Your task to perform on an android device: Open accessibility settings Image 0: 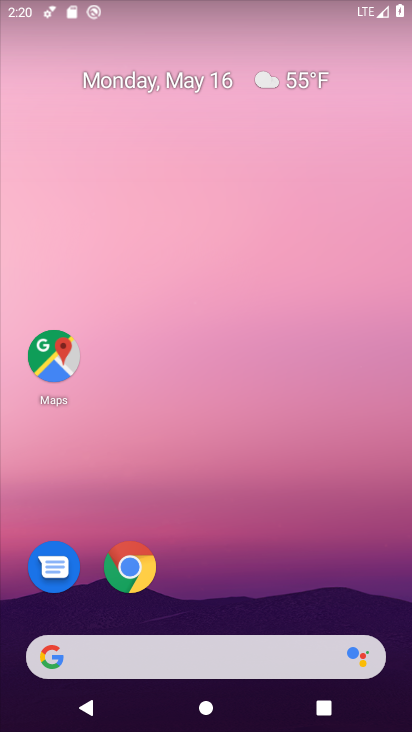
Step 0: drag from (310, 596) to (333, 5)
Your task to perform on an android device: Open accessibility settings Image 1: 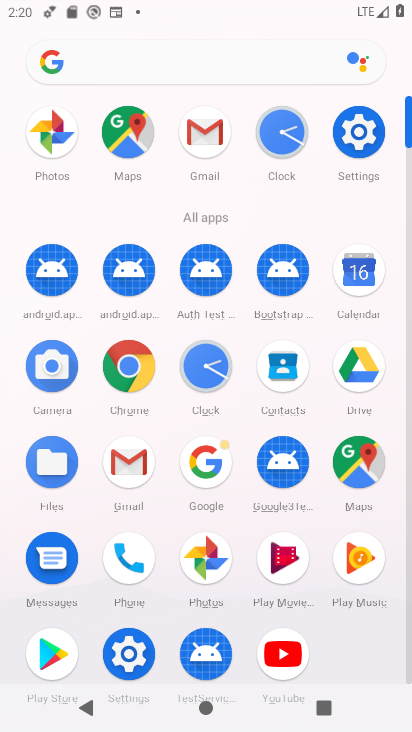
Step 1: click (354, 109)
Your task to perform on an android device: Open accessibility settings Image 2: 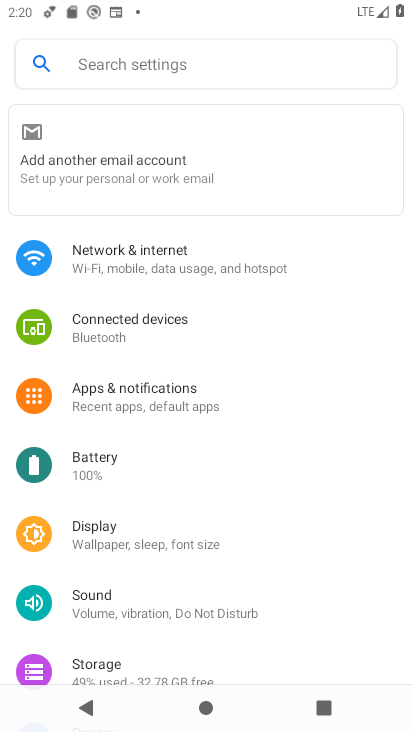
Step 2: drag from (226, 629) to (182, 78)
Your task to perform on an android device: Open accessibility settings Image 3: 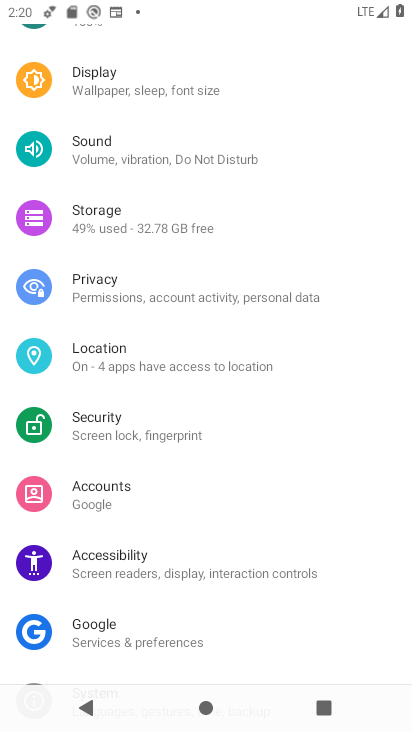
Step 3: click (122, 560)
Your task to perform on an android device: Open accessibility settings Image 4: 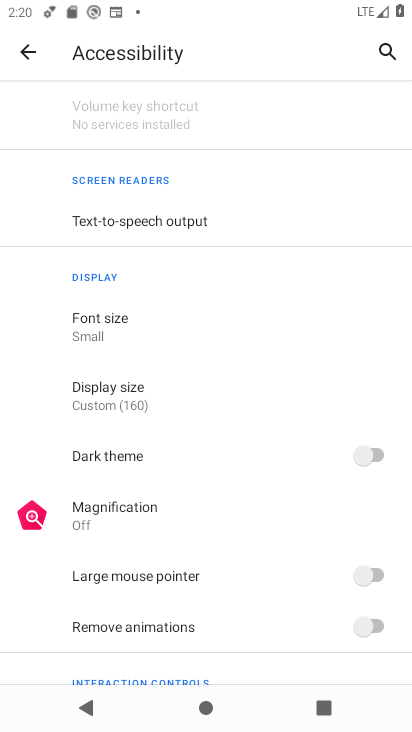
Step 4: task complete